Your task to perform on an android device: Open Google Maps Image 0: 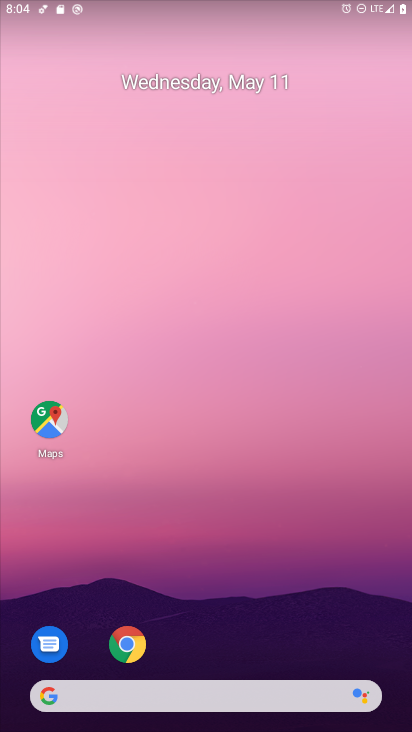
Step 0: click (47, 424)
Your task to perform on an android device: Open Google Maps Image 1: 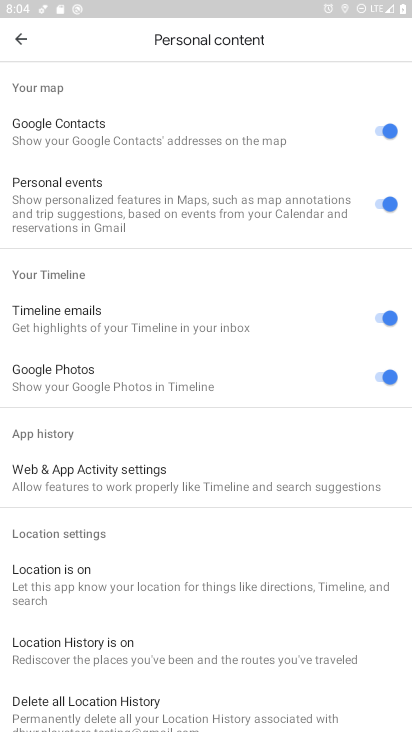
Step 1: task complete